Your task to perform on an android device: stop showing notifications on the lock screen Image 0: 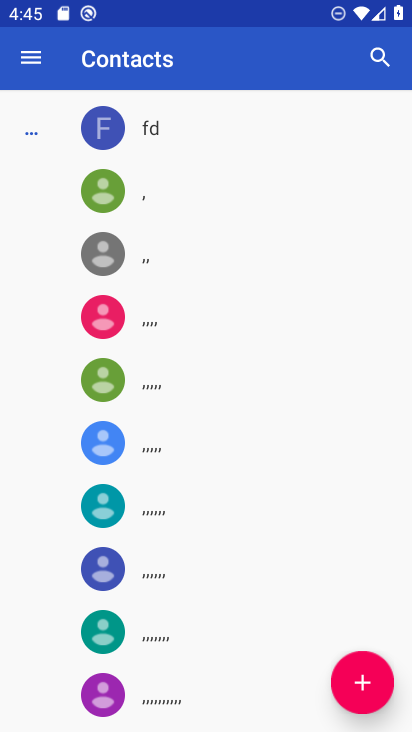
Step 0: press home button
Your task to perform on an android device: stop showing notifications on the lock screen Image 1: 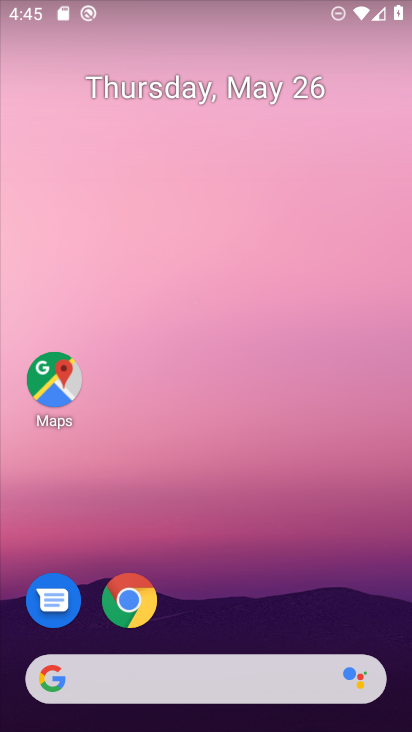
Step 1: drag from (232, 485) to (237, 69)
Your task to perform on an android device: stop showing notifications on the lock screen Image 2: 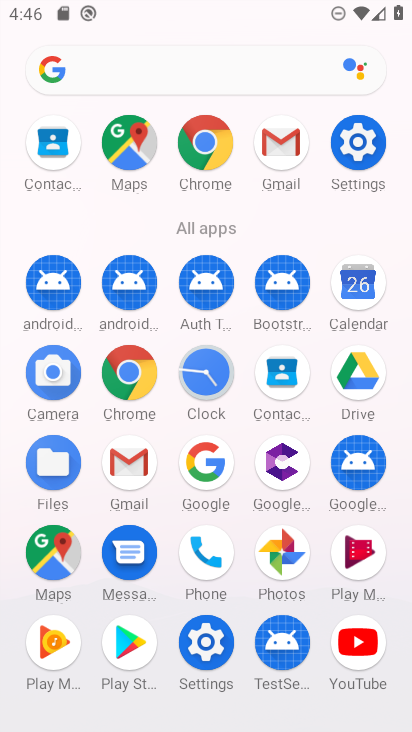
Step 2: click (207, 652)
Your task to perform on an android device: stop showing notifications on the lock screen Image 3: 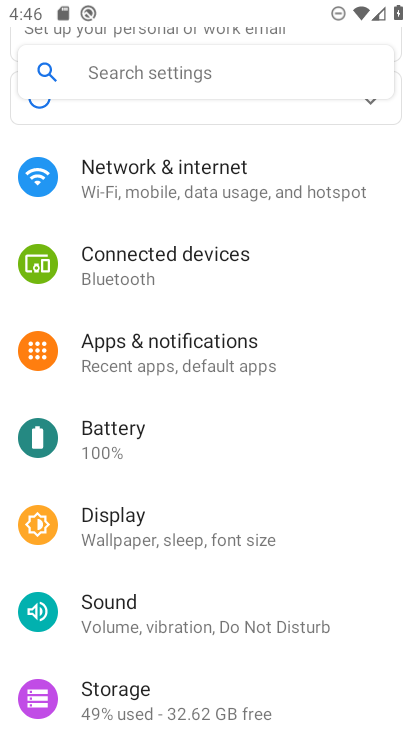
Step 3: click (195, 361)
Your task to perform on an android device: stop showing notifications on the lock screen Image 4: 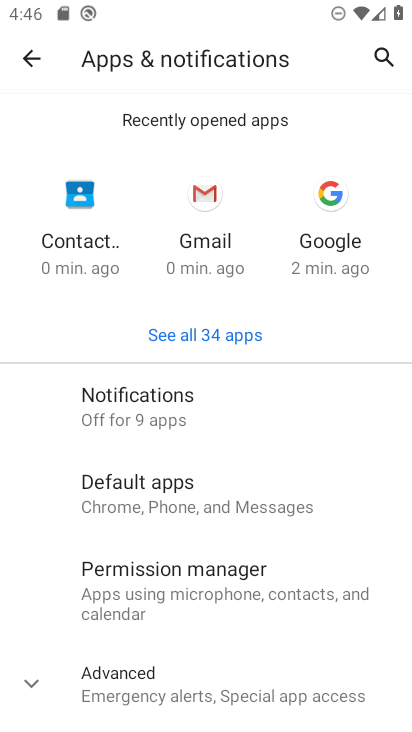
Step 4: click (180, 420)
Your task to perform on an android device: stop showing notifications on the lock screen Image 5: 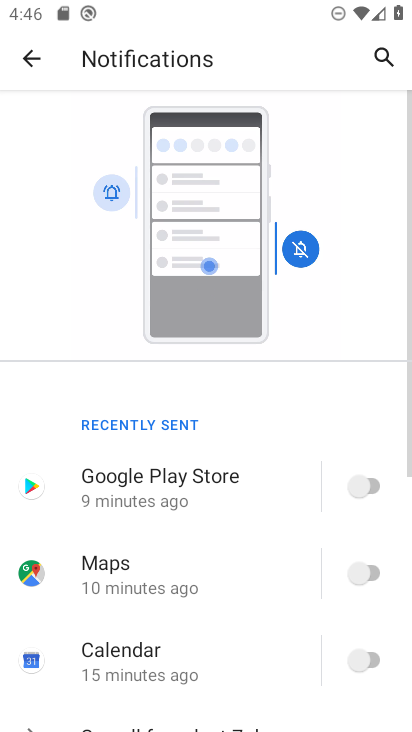
Step 5: drag from (215, 614) to (276, 250)
Your task to perform on an android device: stop showing notifications on the lock screen Image 6: 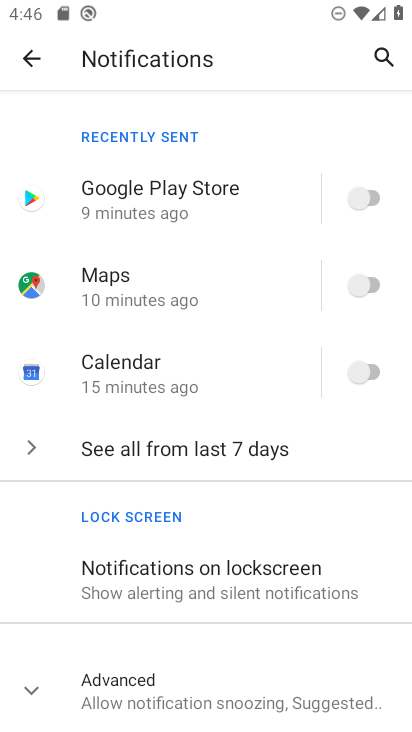
Step 6: drag from (235, 595) to (260, 376)
Your task to perform on an android device: stop showing notifications on the lock screen Image 7: 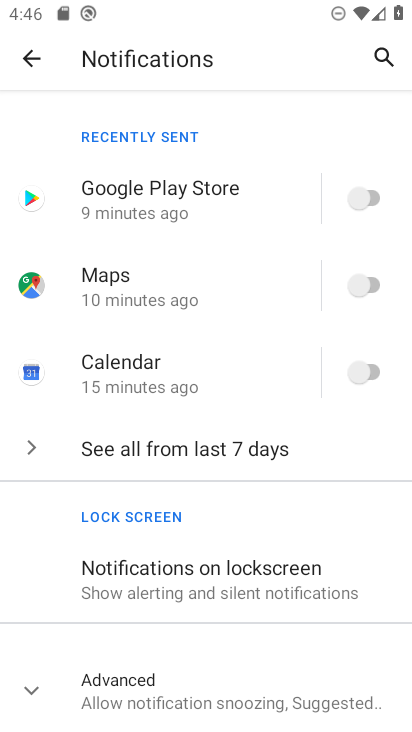
Step 7: click (215, 584)
Your task to perform on an android device: stop showing notifications on the lock screen Image 8: 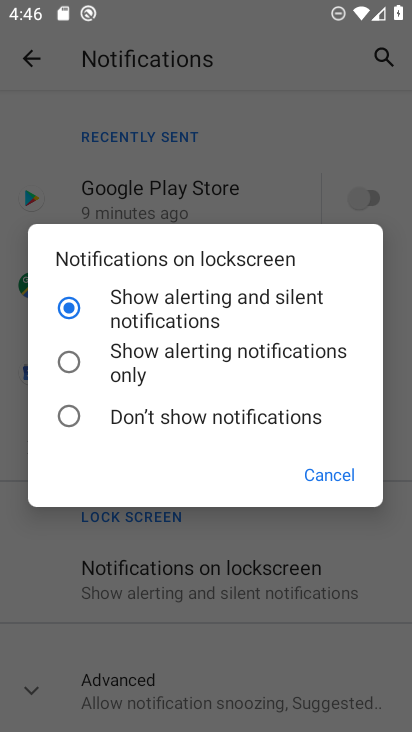
Step 8: click (141, 432)
Your task to perform on an android device: stop showing notifications on the lock screen Image 9: 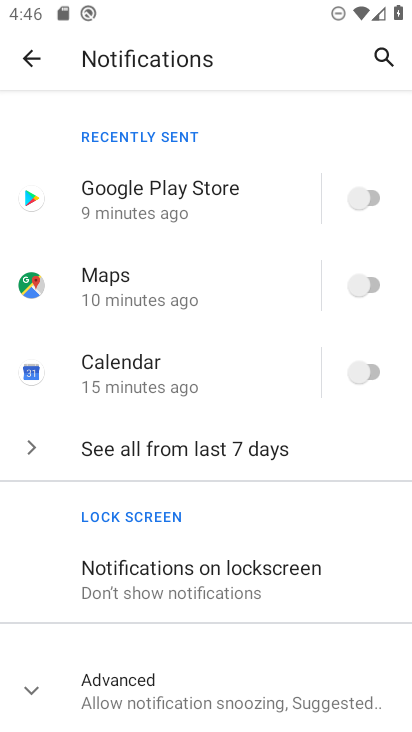
Step 9: task complete